Your task to perform on an android device: turn on the 24-hour format for clock Image 0: 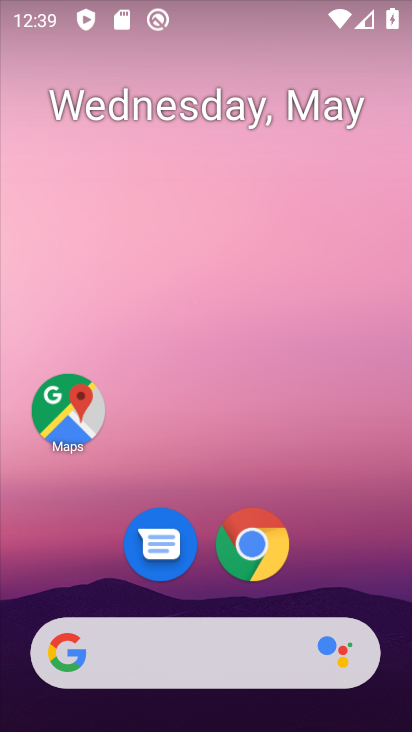
Step 0: drag from (304, 574) to (292, 178)
Your task to perform on an android device: turn on the 24-hour format for clock Image 1: 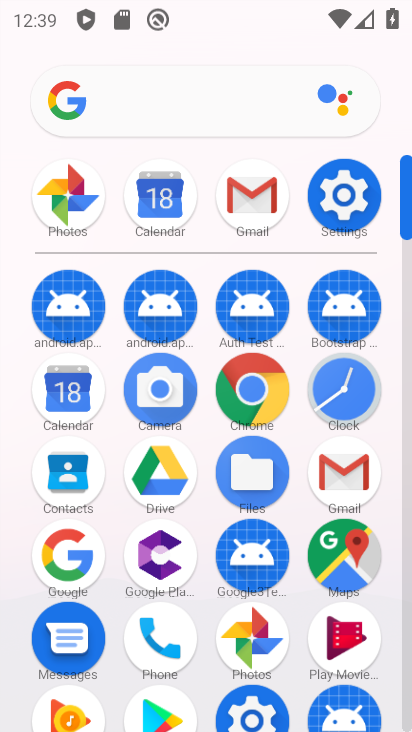
Step 1: click (342, 393)
Your task to perform on an android device: turn on the 24-hour format for clock Image 2: 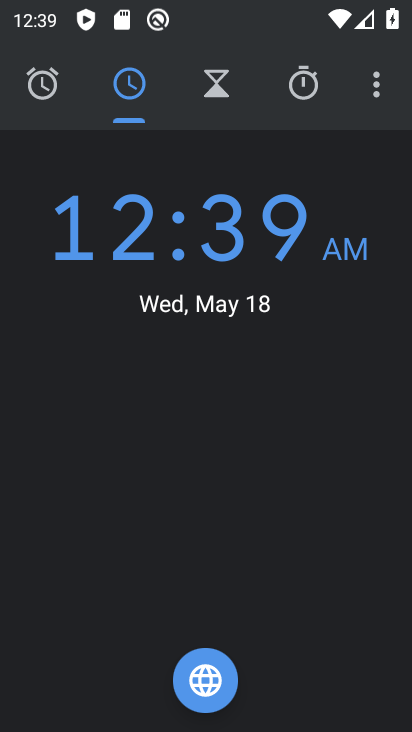
Step 2: click (378, 93)
Your task to perform on an android device: turn on the 24-hour format for clock Image 3: 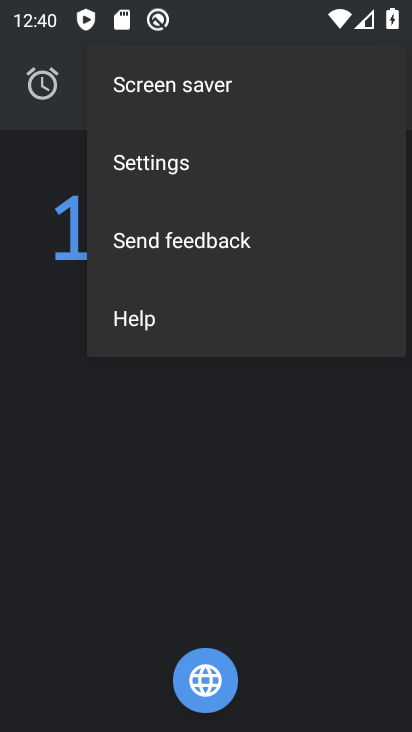
Step 3: click (173, 164)
Your task to perform on an android device: turn on the 24-hour format for clock Image 4: 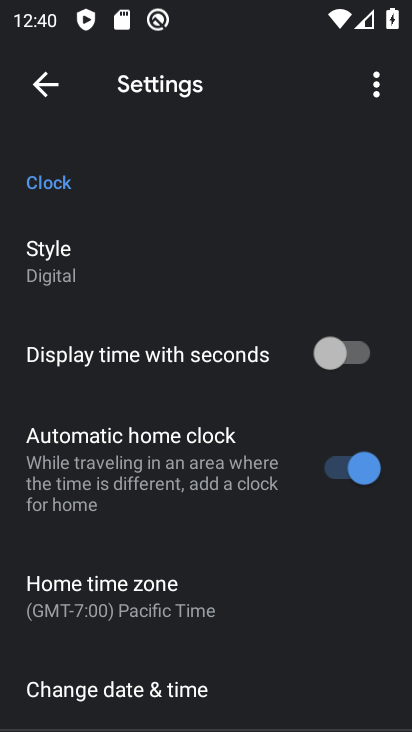
Step 4: click (157, 679)
Your task to perform on an android device: turn on the 24-hour format for clock Image 5: 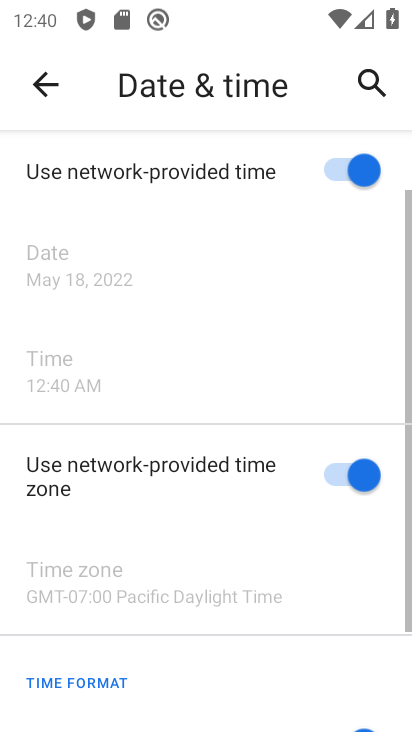
Step 5: drag from (222, 567) to (254, 127)
Your task to perform on an android device: turn on the 24-hour format for clock Image 6: 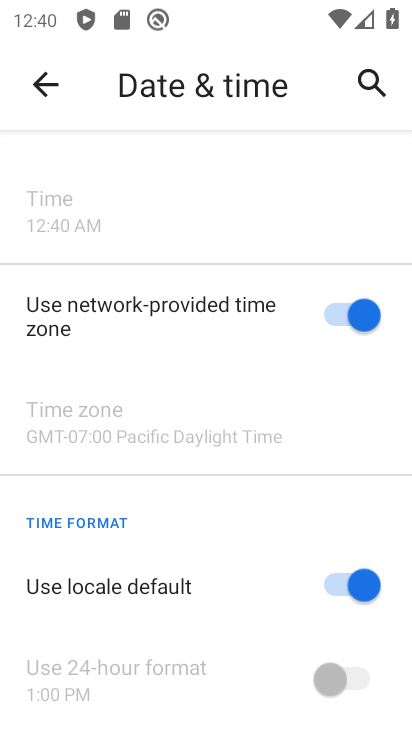
Step 6: click (323, 590)
Your task to perform on an android device: turn on the 24-hour format for clock Image 7: 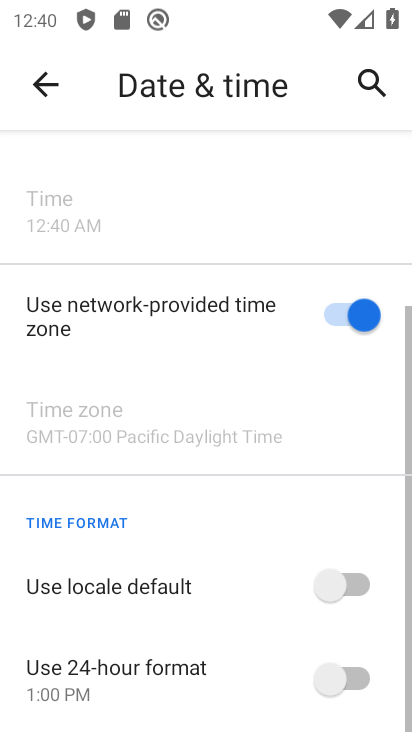
Step 7: click (351, 692)
Your task to perform on an android device: turn on the 24-hour format for clock Image 8: 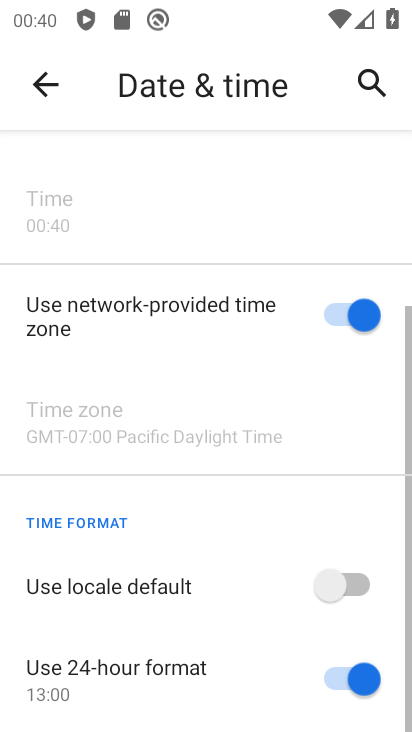
Step 8: task complete